Your task to perform on an android device: turn on airplane mode Image 0: 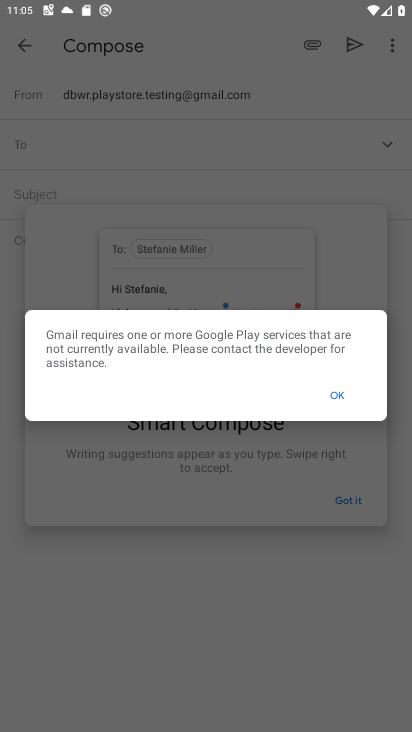
Step 0: press home button
Your task to perform on an android device: turn on airplane mode Image 1: 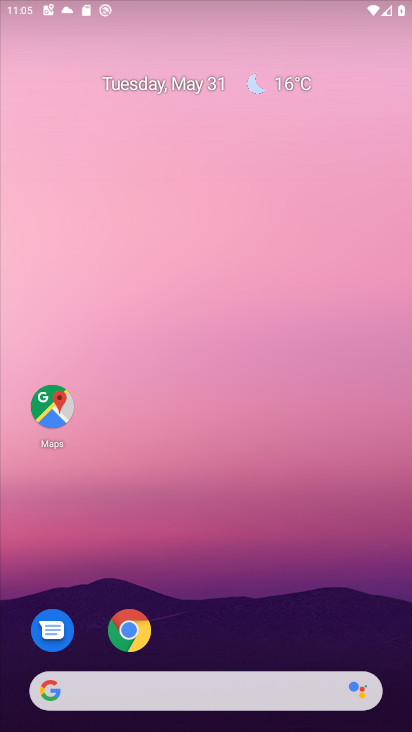
Step 1: drag from (341, 554) to (293, 73)
Your task to perform on an android device: turn on airplane mode Image 2: 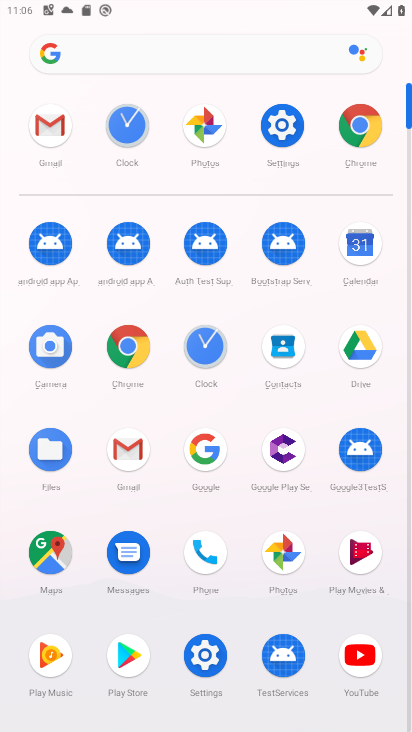
Step 2: click (281, 124)
Your task to perform on an android device: turn on airplane mode Image 3: 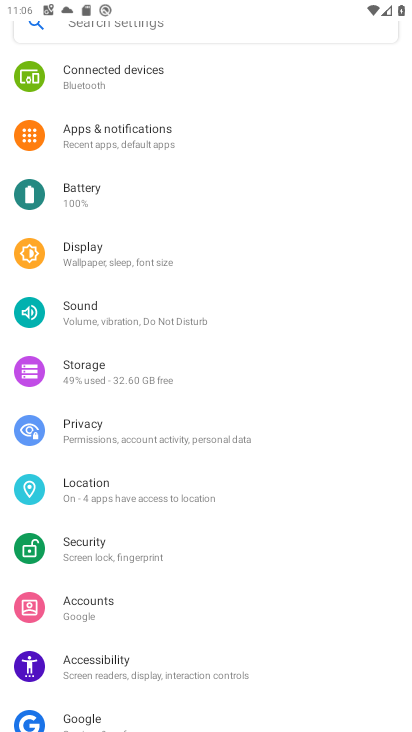
Step 3: drag from (105, 143) to (166, 590)
Your task to perform on an android device: turn on airplane mode Image 4: 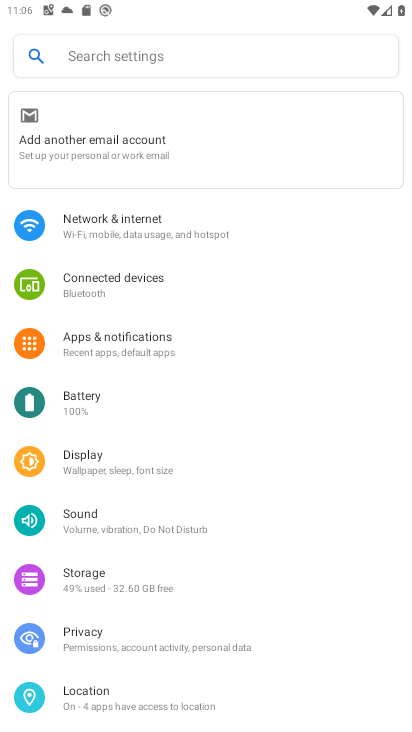
Step 4: click (170, 226)
Your task to perform on an android device: turn on airplane mode Image 5: 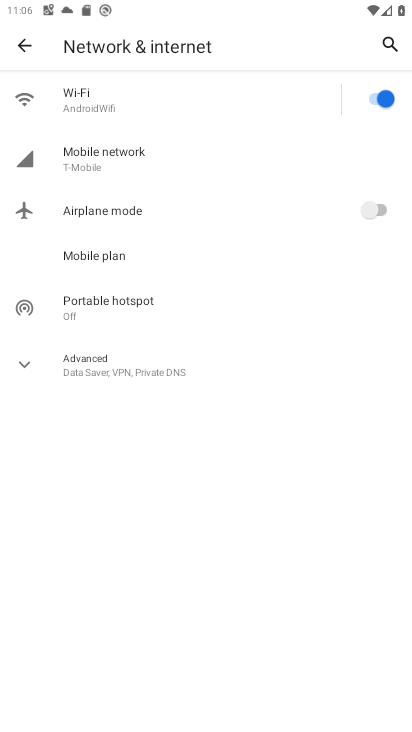
Step 5: click (363, 209)
Your task to perform on an android device: turn on airplane mode Image 6: 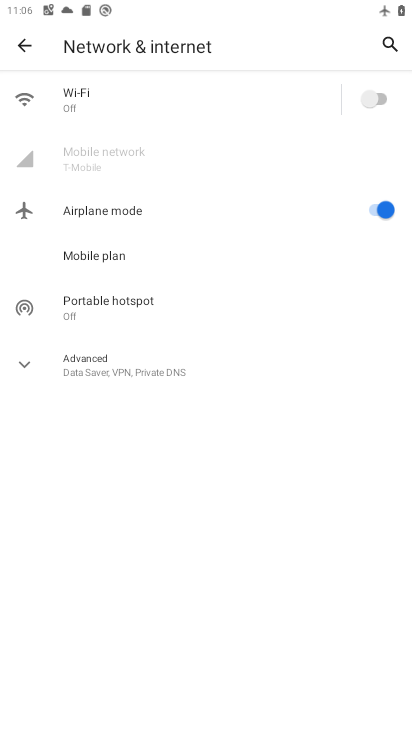
Step 6: task complete